Your task to perform on an android device: uninstall "McDonald's" Image 0: 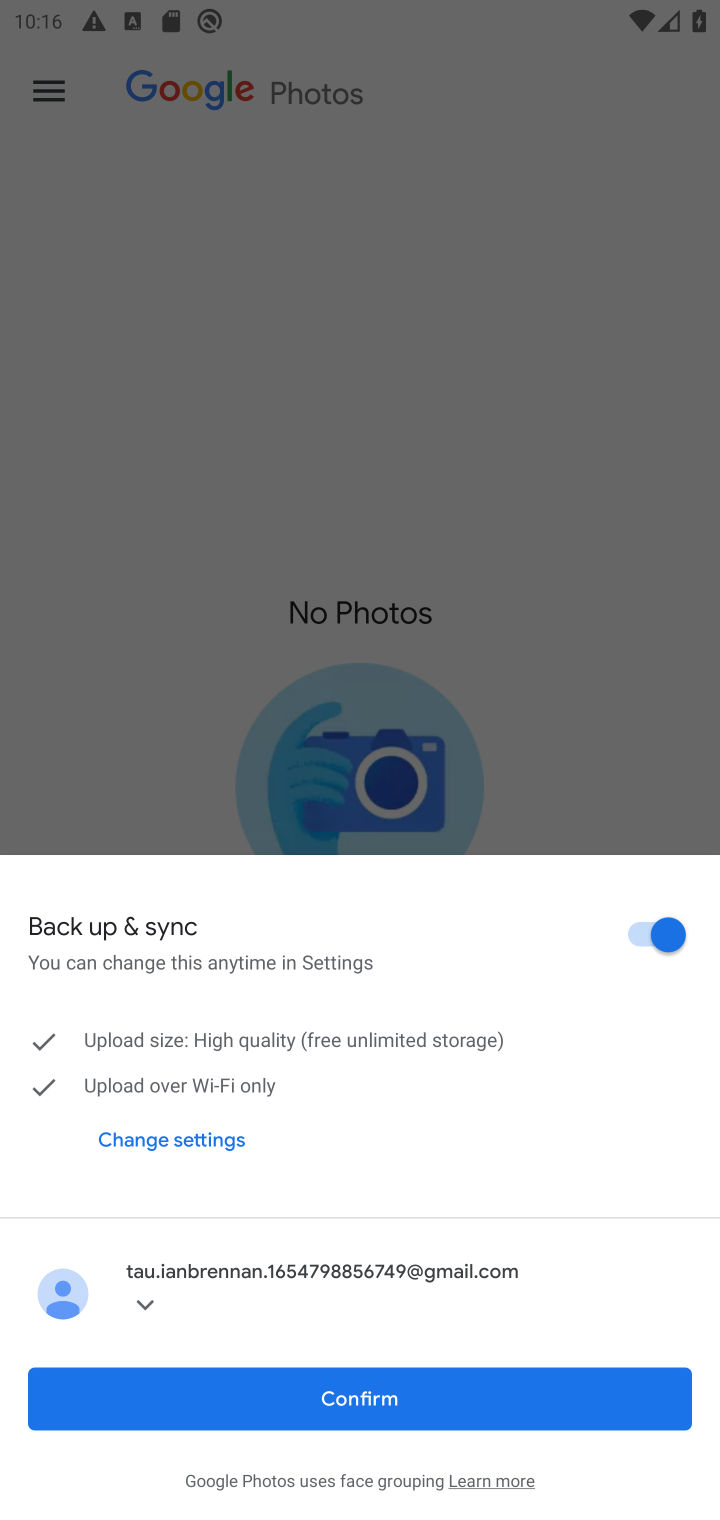
Step 0: press home button
Your task to perform on an android device: uninstall "McDonald's" Image 1: 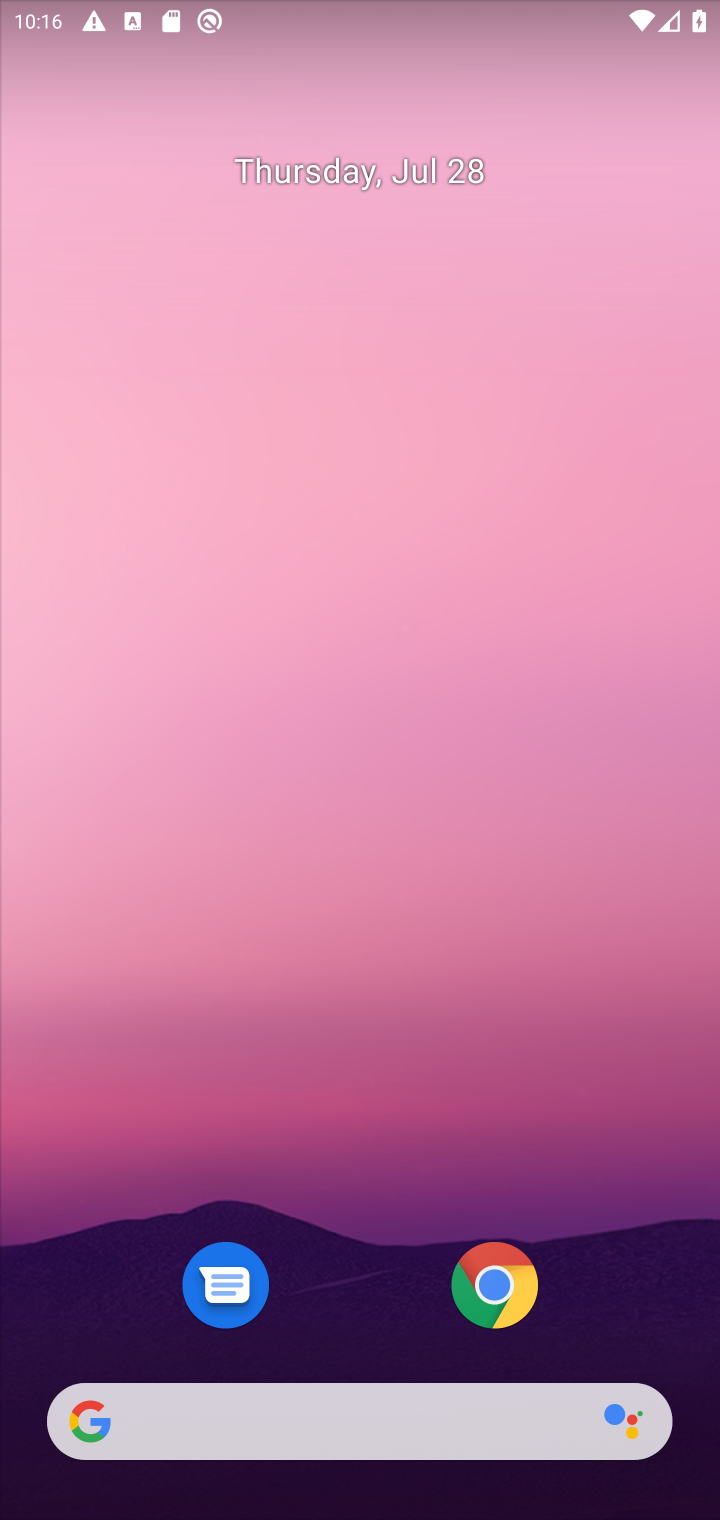
Step 1: drag from (345, 1434) to (373, 102)
Your task to perform on an android device: uninstall "McDonald's" Image 2: 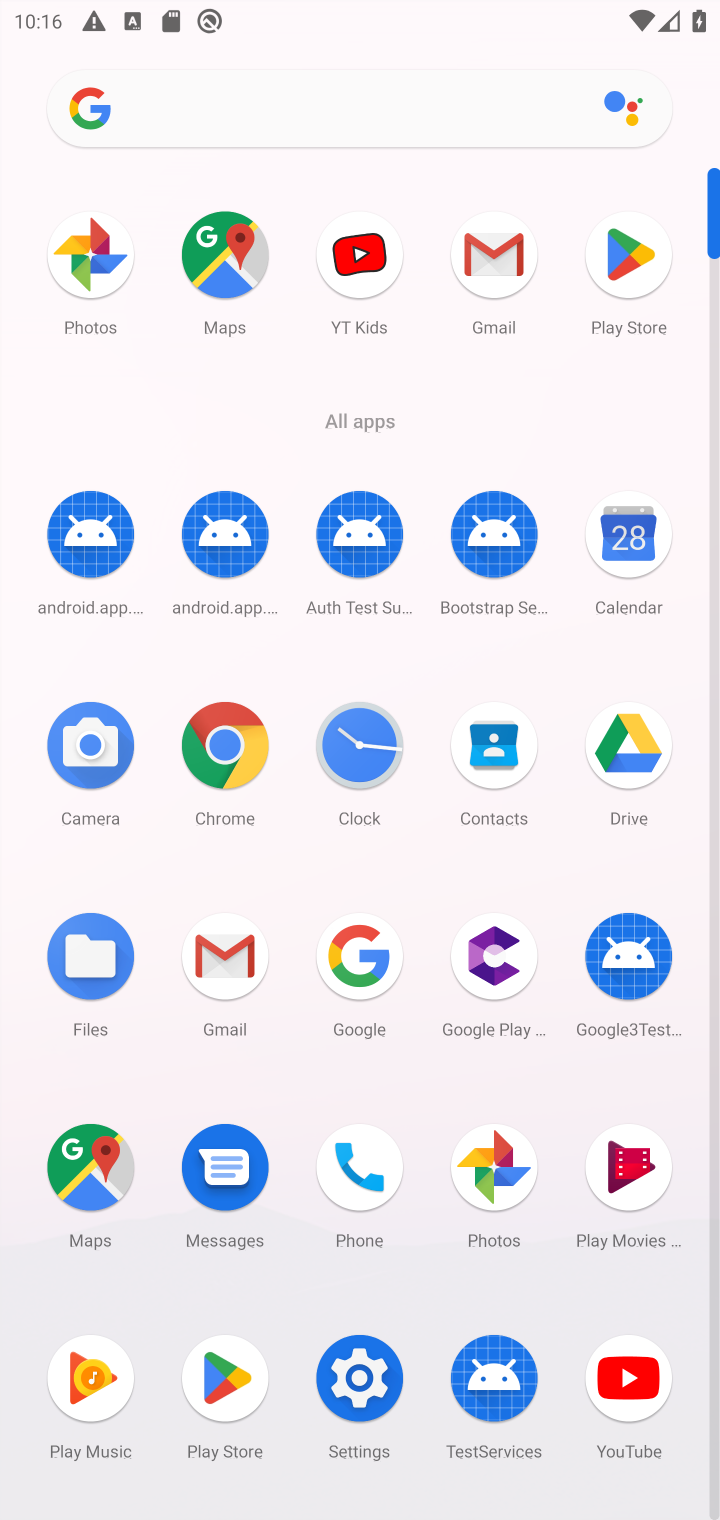
Step 2: click (637, 260)
Your task to perform on an android device: uninstall "McDonald's" Image 3: 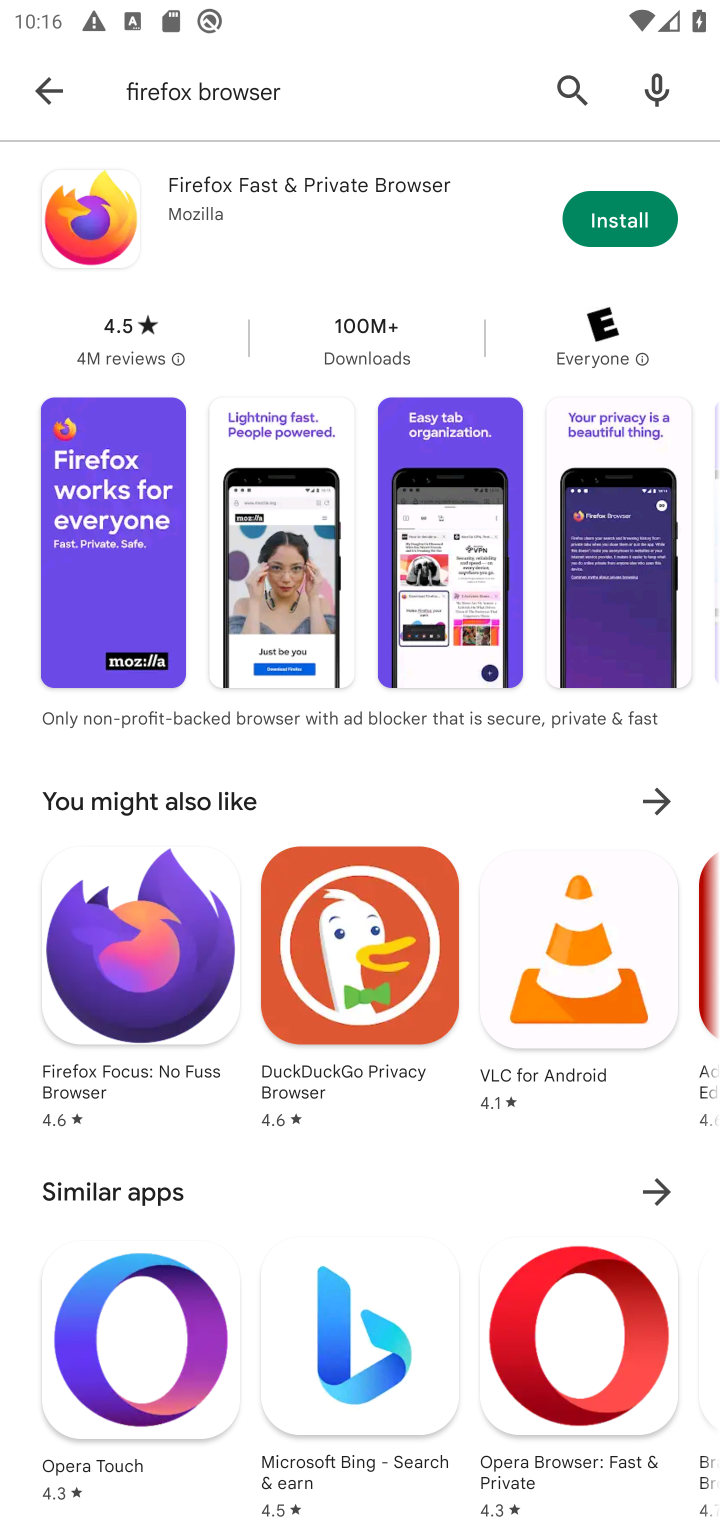
Step 3: click (560, 91)
Your task to perform on an android device: uninstall "McDonald's" Image 4: 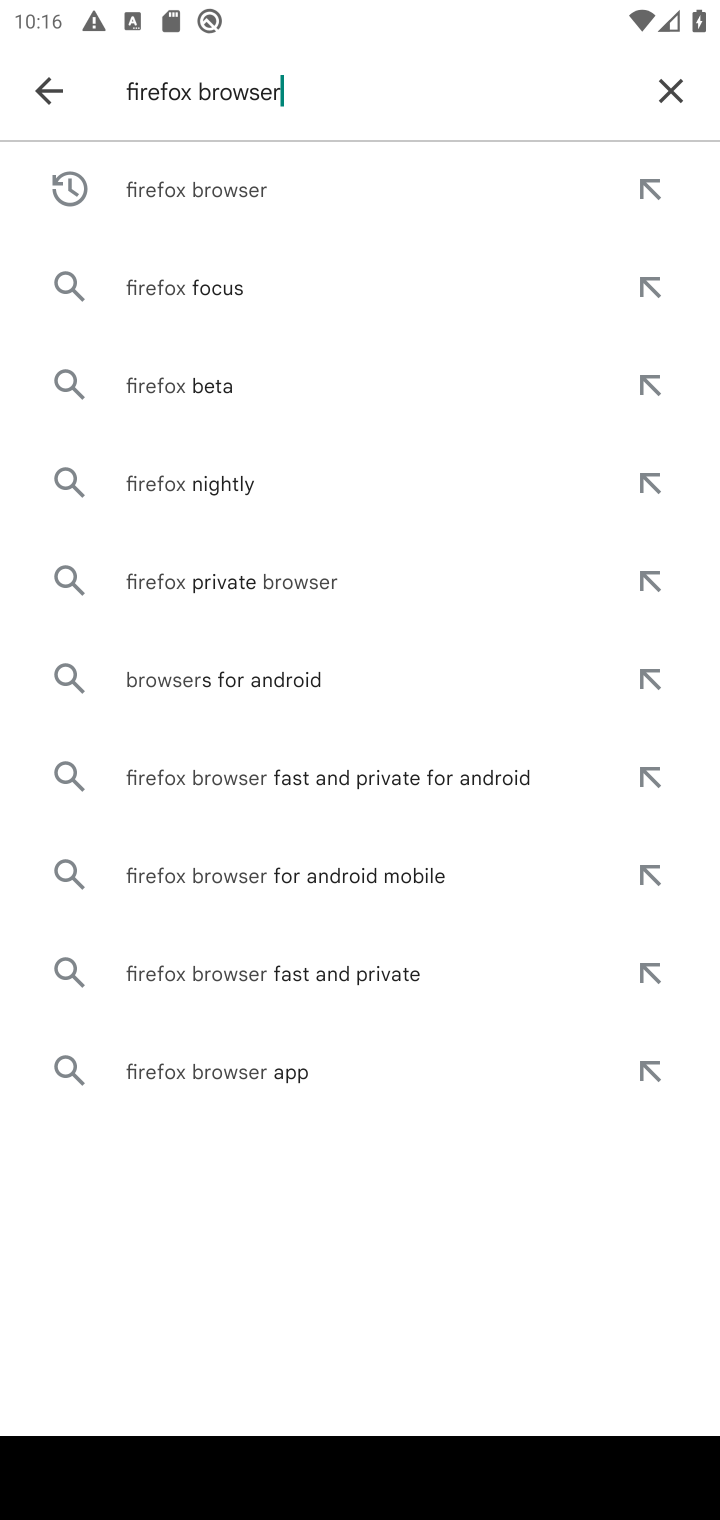
Step 4: click (673, 98)
Your task to perform on an android device: uninstall "McDonald's" Image 5: 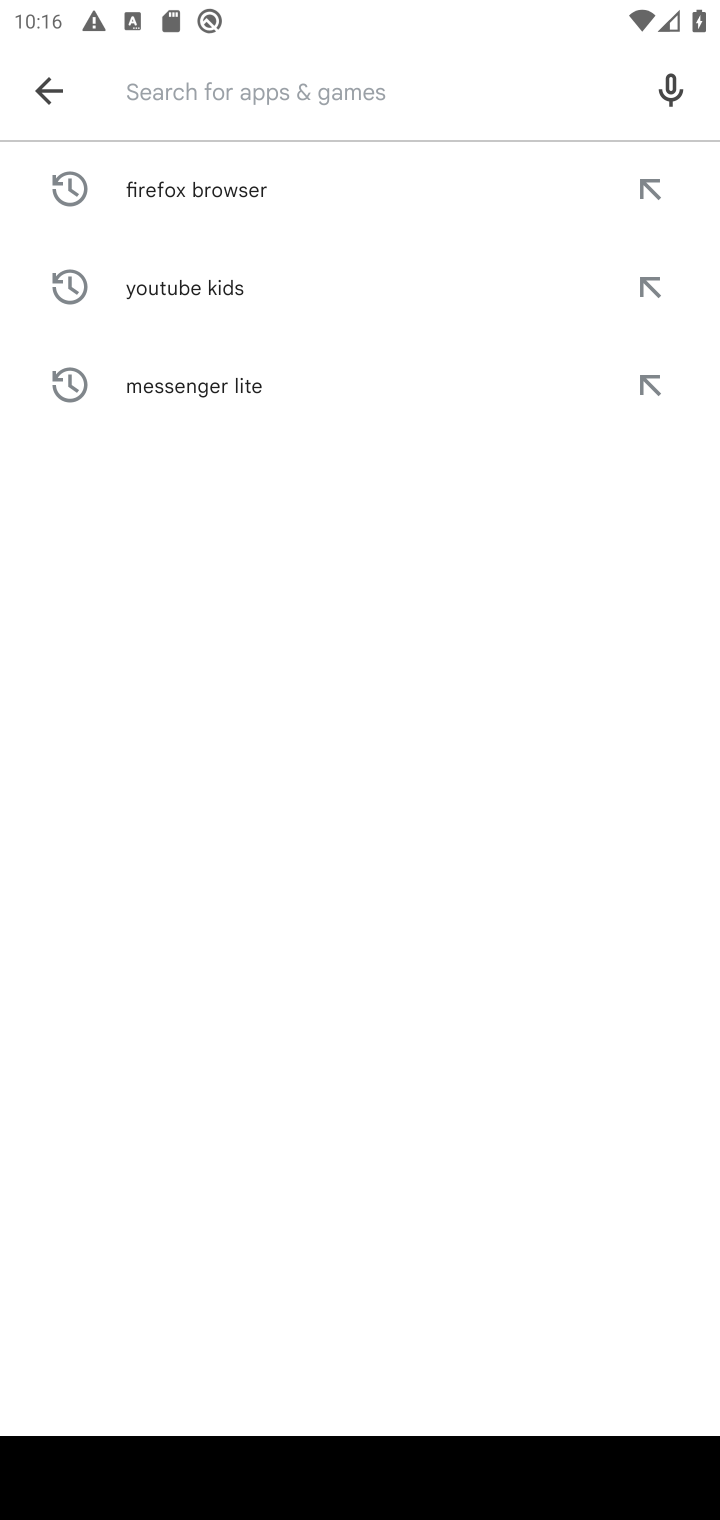
Step 5: click (299, 102)
Your task to perform on an android device: uninstall "McDonald's" Image 6: 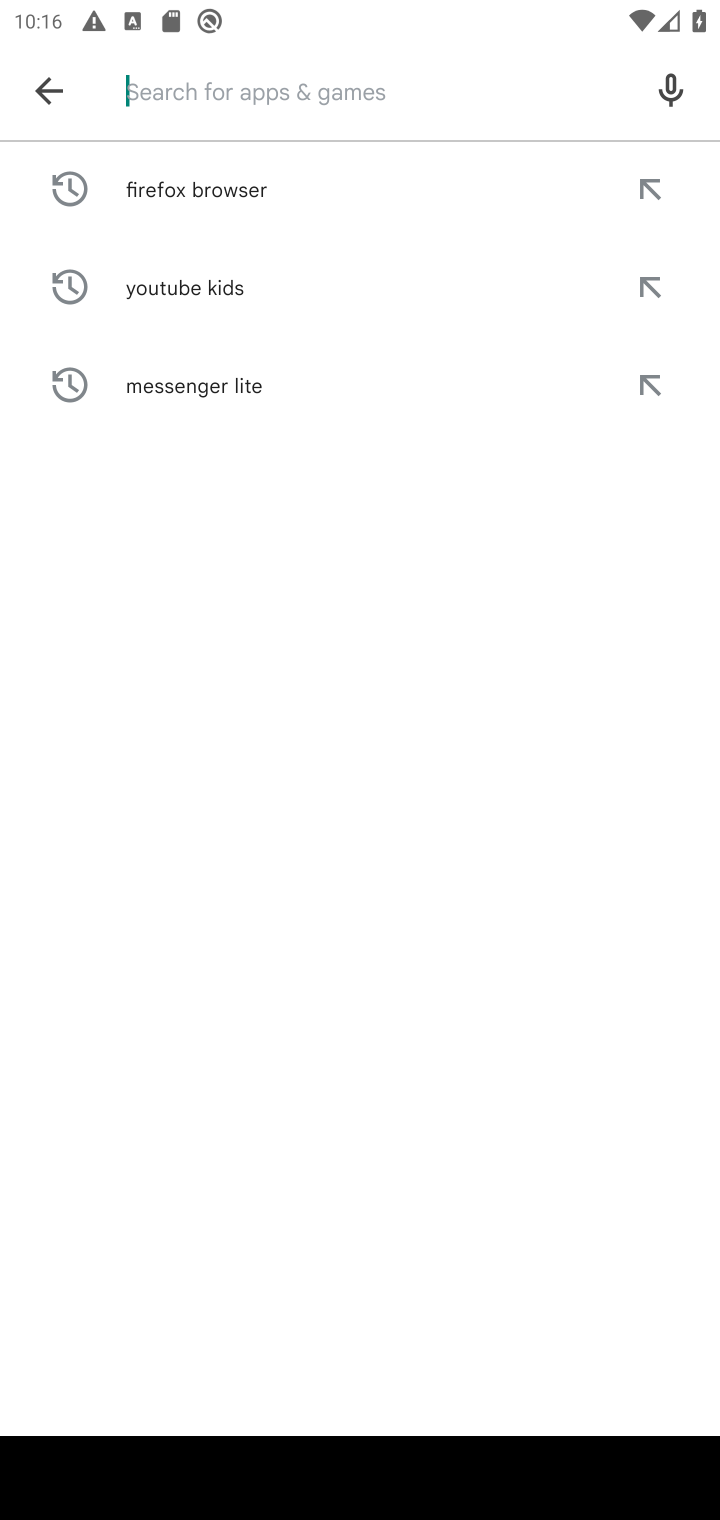
Step 6: type "McDonald's"
Your task to perform on an android device: uninstall "McDonald's" Image 7: 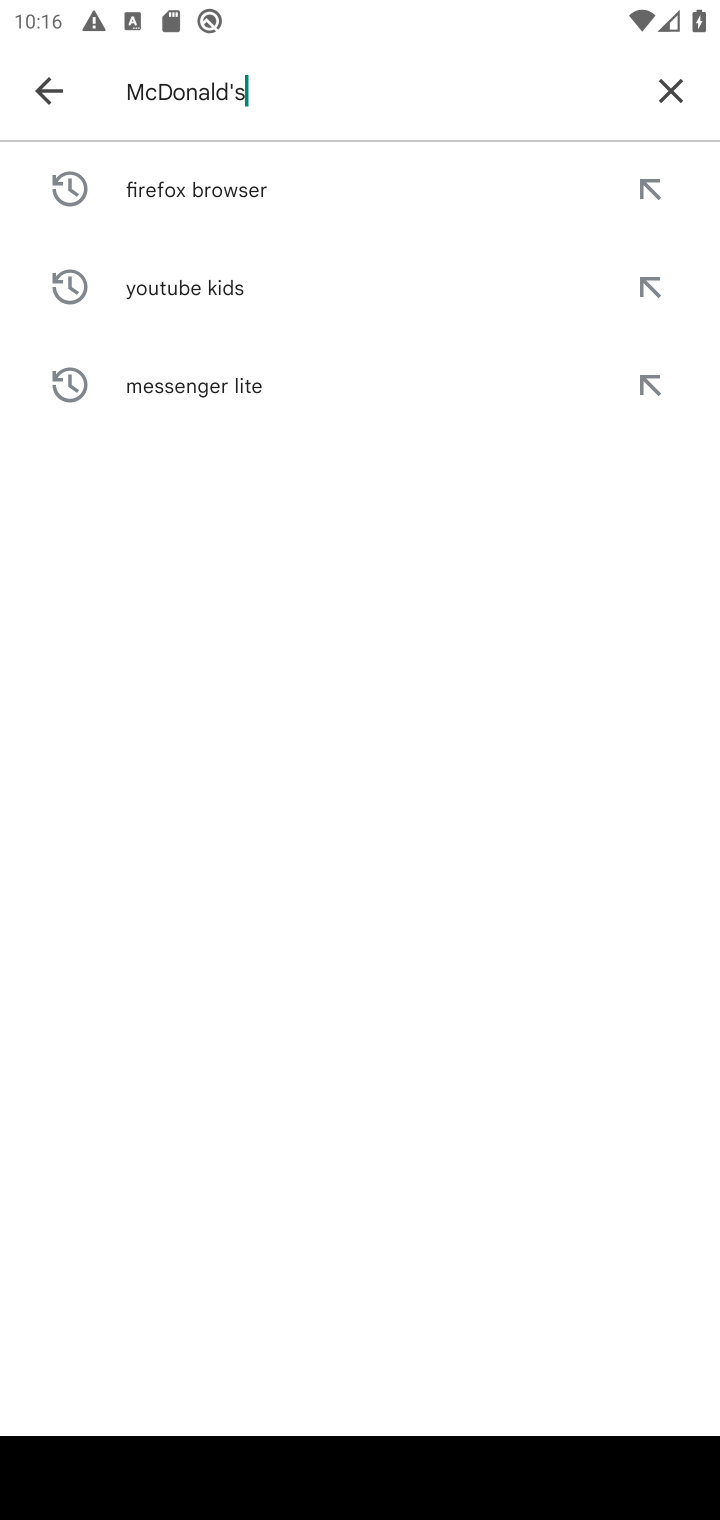
Step 7: type ""
Your task to perform on an android device: uninstall "McDonald's" Image 8: 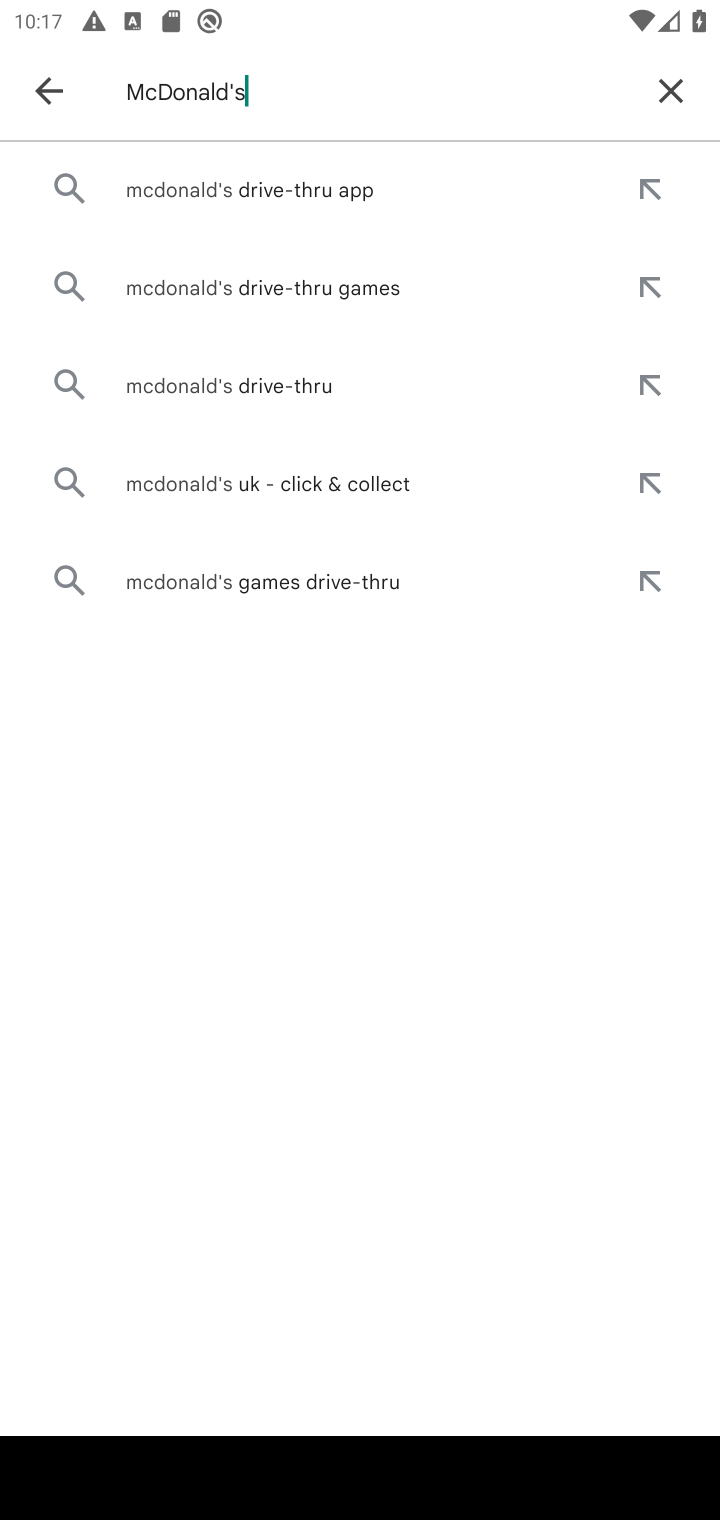
Step 8: click (215, 189)
Your task to perform on an android device: uninstall "McDonald's" Image 9: 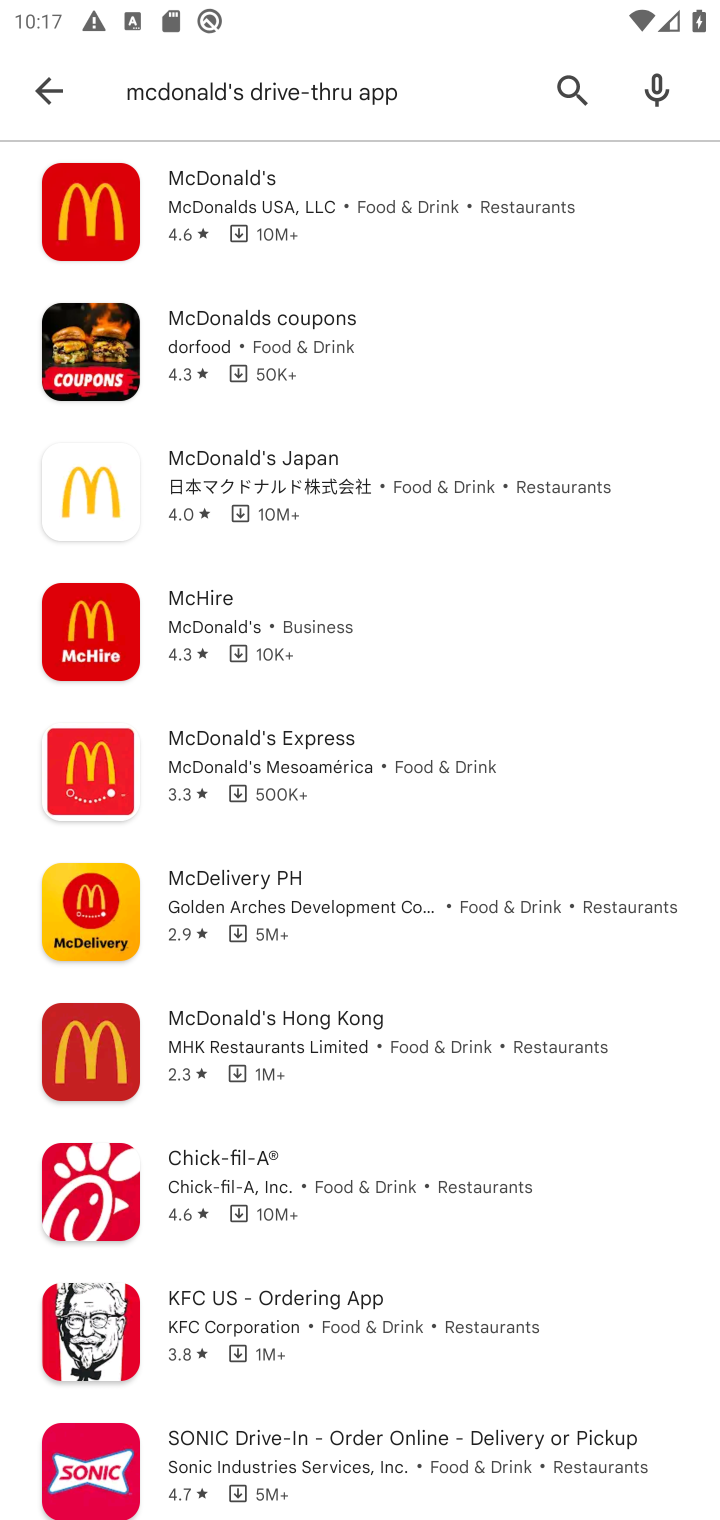
Step 9: click (201, 214)
Your task to perform on an android device: uninstall "McDonald's" Image 10: 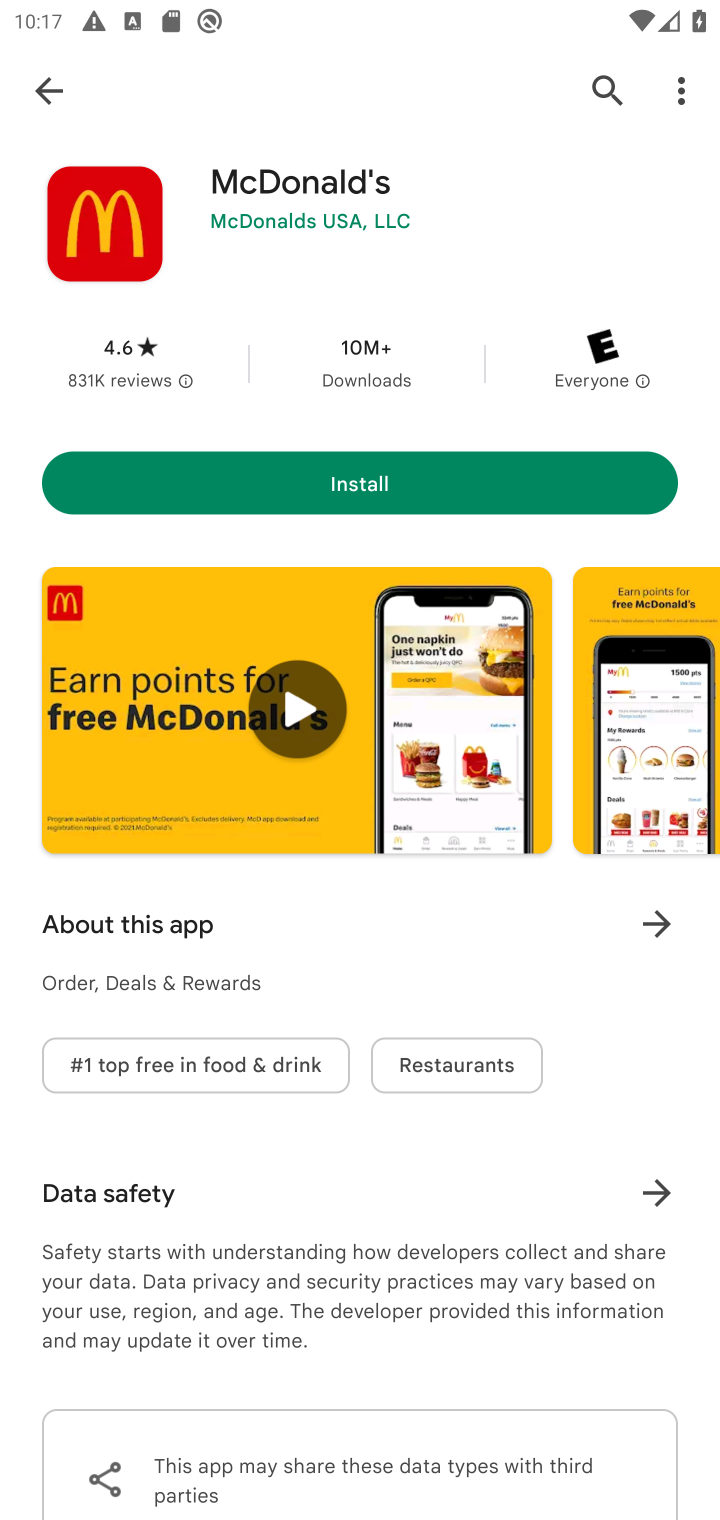
Step 10: task complete